Your task to perform on an android device: change notifications settings Image 0: 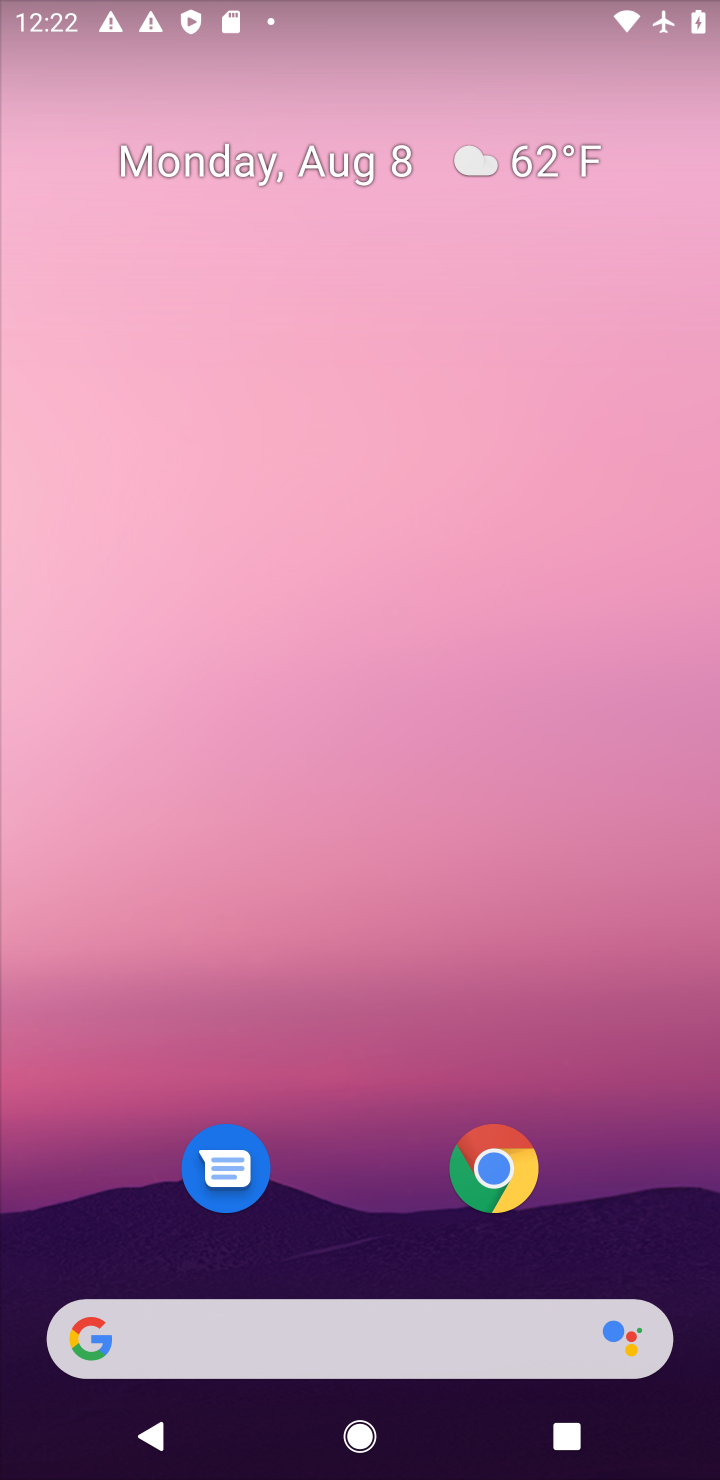
Step 0: drag from (399, 1246) to (344, 234)
Your task to perform on an android device: change notifications settings Image 1: 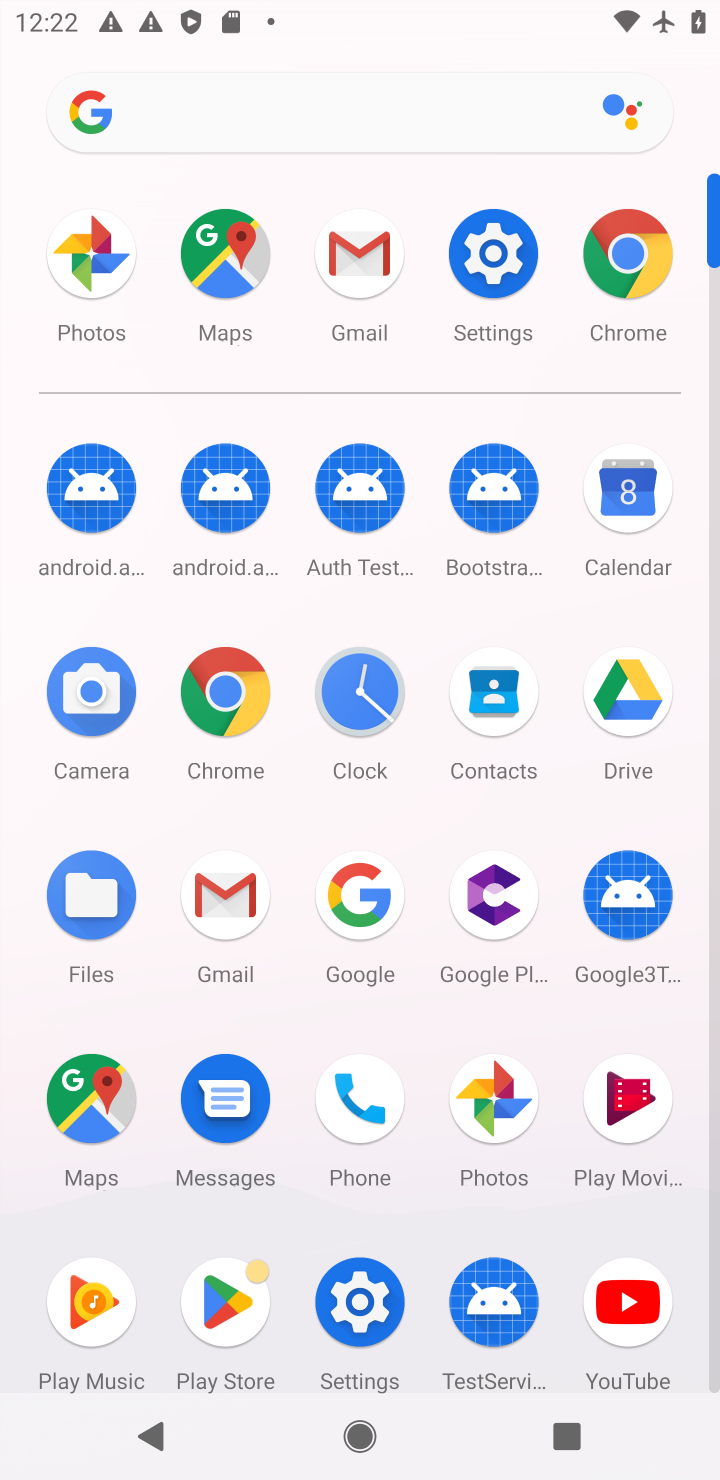
Step 1: click (490, 331)
Your task to perform on an android device: change notifications settings Image 2: 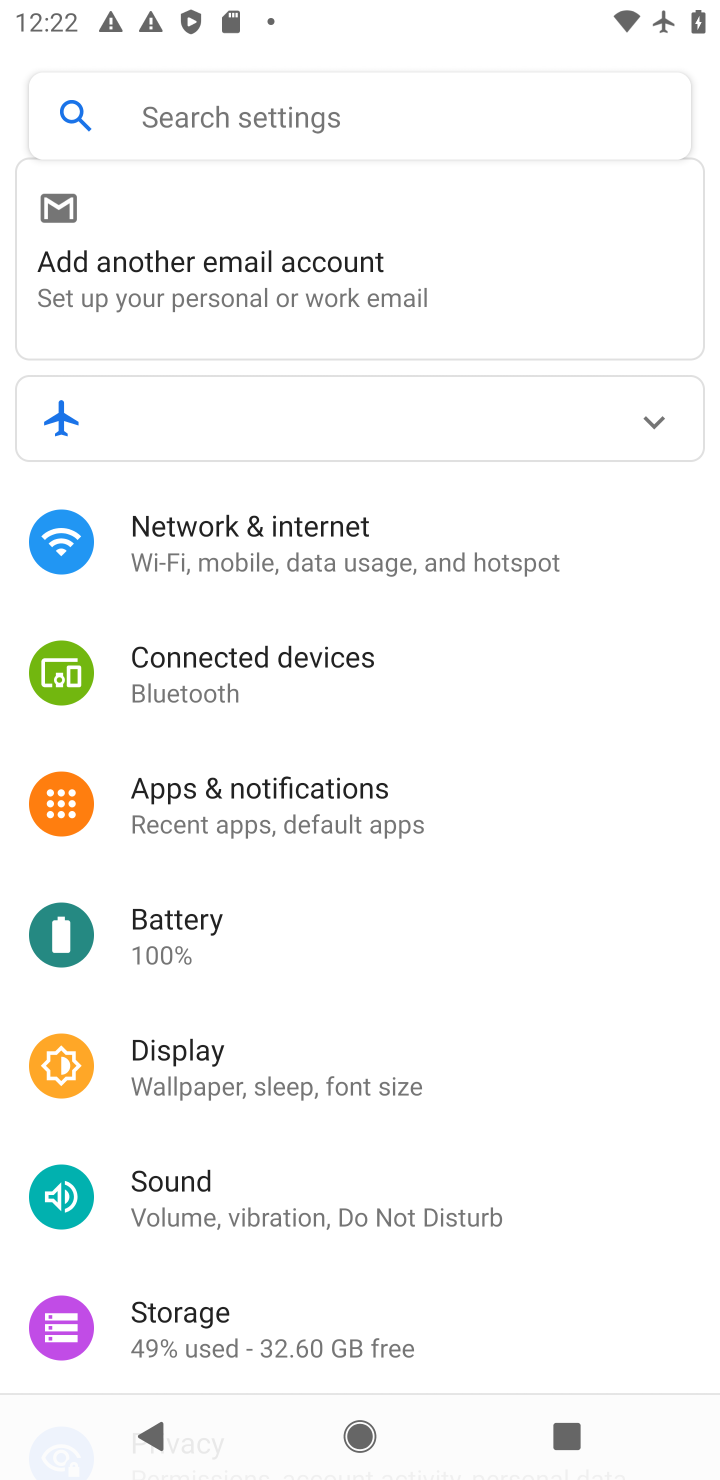
Step 2: click (450, 799)
Your task to perform on an android device: change notifications settings Image 3: 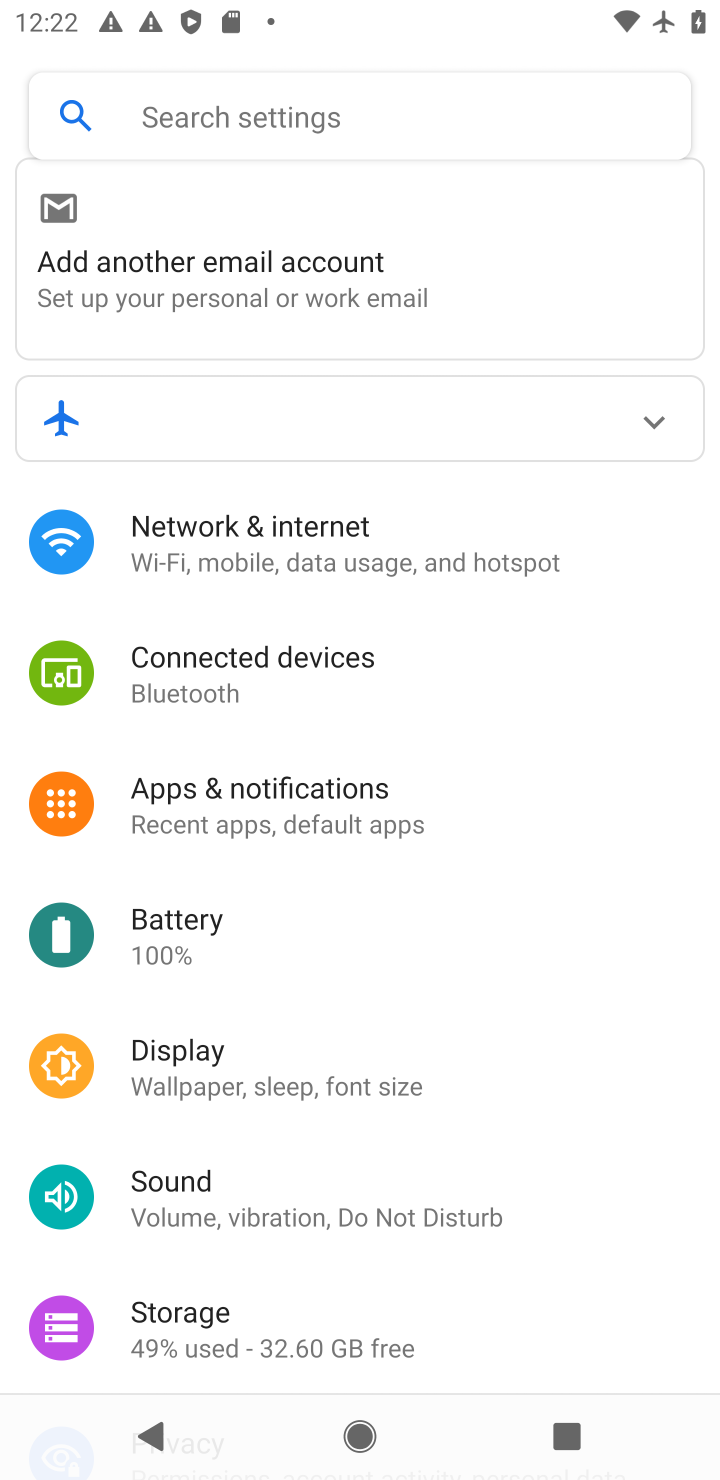
Step 3: task complete